Your task to perform on an android device: allow notifications from all sites in the chrome app Image 0: 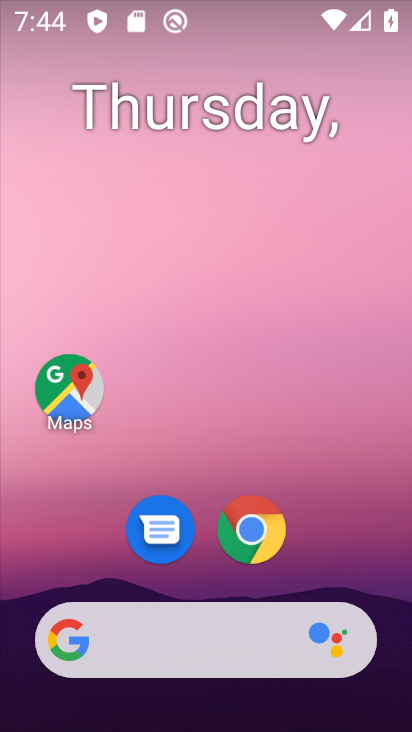
Step 0: click (246, 536)
Your task to perform on an android device: allow notifications from all sites in the chrome app Image 1: 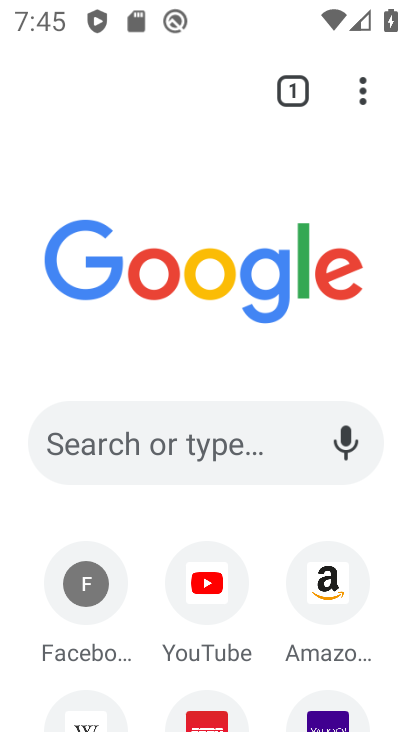
Step 1: click (385, 93)
Your task to perform on an android device: allow notifications from all sites in the chrome app Image 2: 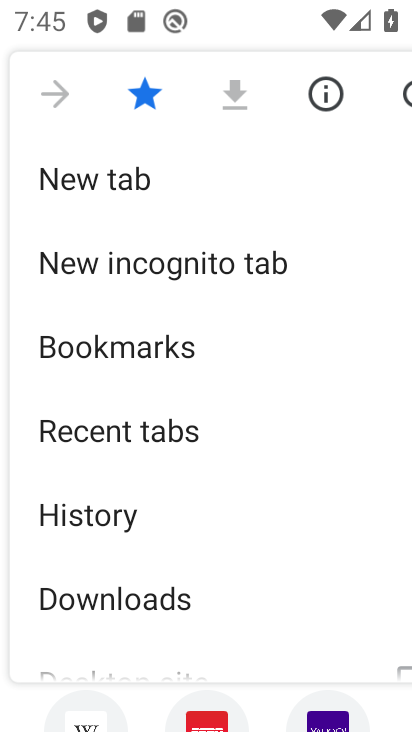
Step 2: drag from (140, 592) to (179, 231)
Your task to perform on an android device: allow notifications from all sites in the chrome app Image 3: 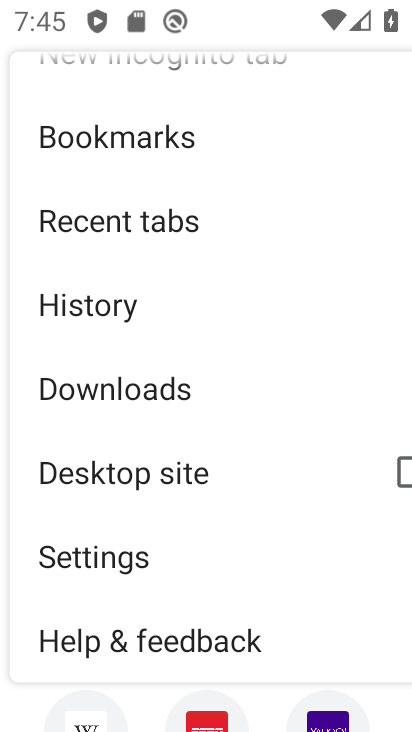
Step 3: click (151, 564)
Your task to perform on an android device: allow notifications from all sites in the chrome app Image 4: 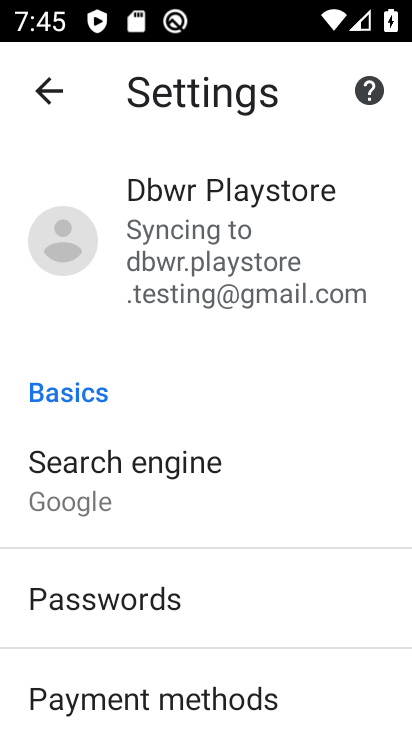
Step 4: drag from (165, 651) to (240, 266)
Your task to perform on an android device: allow notifications from all sites in the chrome app Image 5: 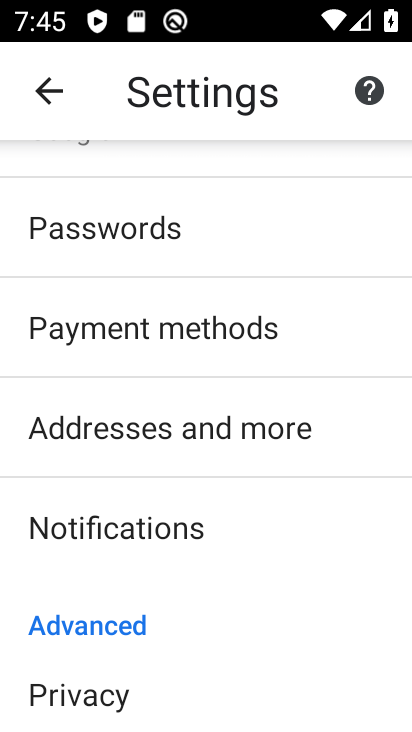
Step 5: click (209, 509)
Your task to perform on an android device: allow notifications from all sites in the chrome app Image 6: 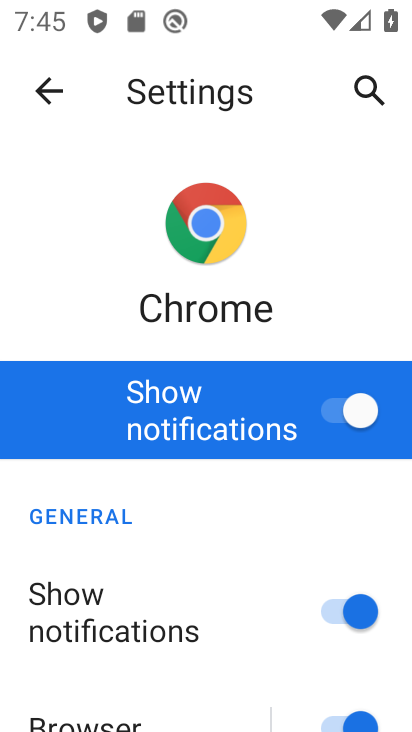
Step 6: task complete